Your task to perform on an android device: Search for Mexican restaurants on Maps Image 0: 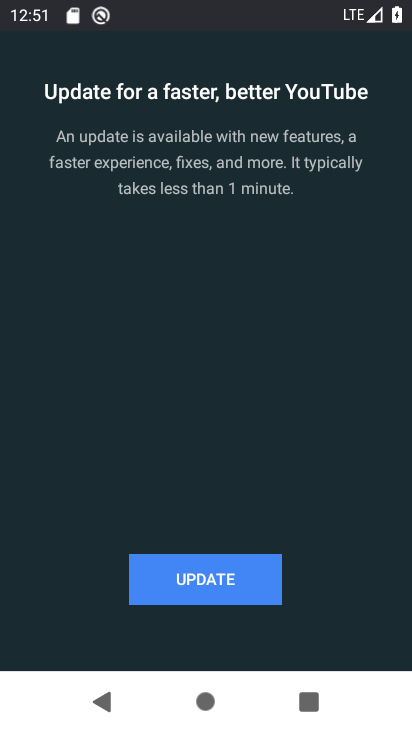
Step 0: press home button
Your task to perform on an android device: Search for Mexican restaurants on Maps Image 1: 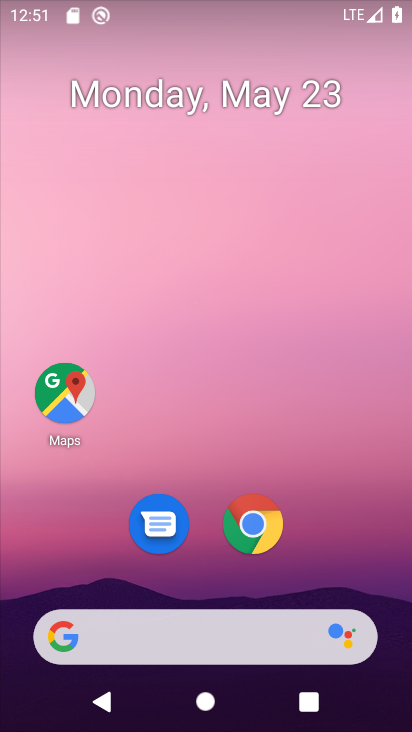
Step 1: click (66, 391)
Your task to perform on an android device: Search for Mexican restaurants on Maps Image 2: 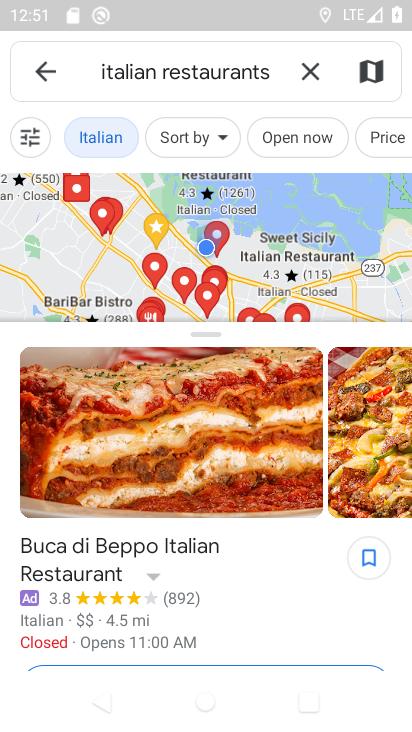
Step 2: click (308, 71)
Your task to perform on an android device: Search for Mexican restaurants on Maps Image 3: 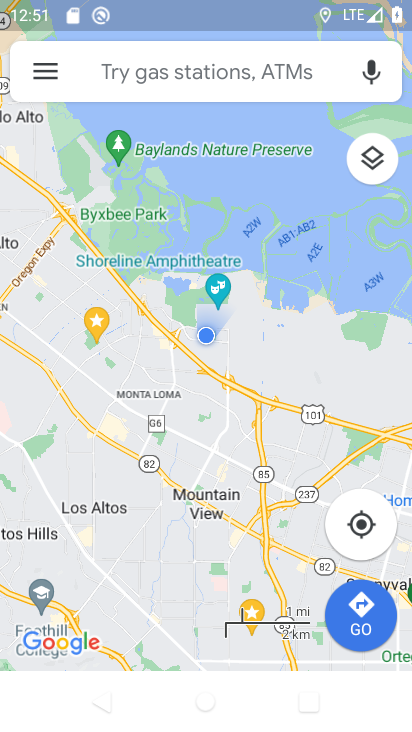
Step 3: click (212, 56)
Your task to perform on an android device: Search for Mexican restaurants on Maps Image 4: 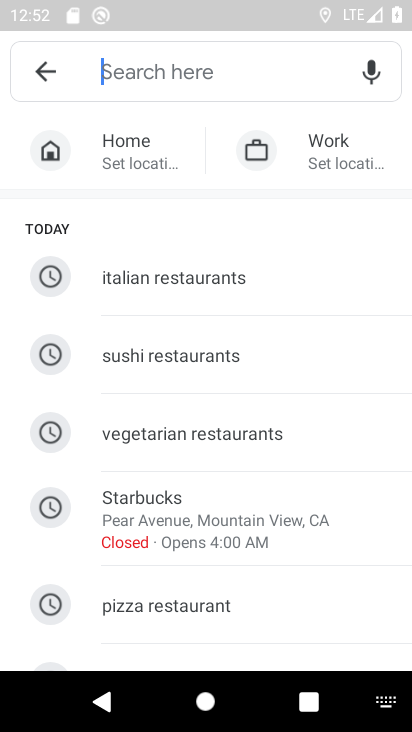
Step 4: drag from (236, 517) to (275, 237)
Your task to perform on an android device: Search for Mexican restaurants on Maps Image 5: 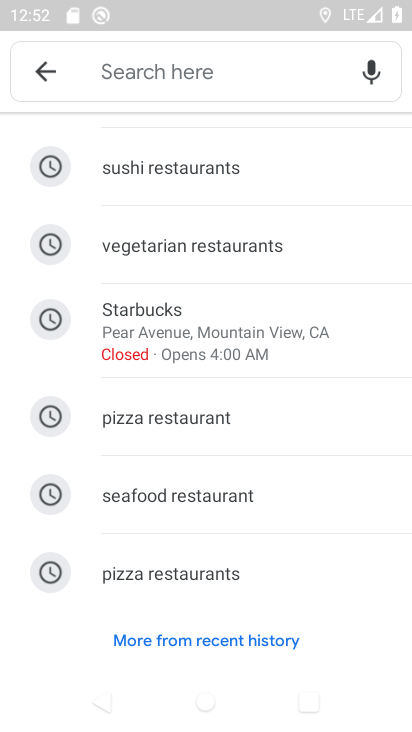
Step 5: drag from (229, 247) to (236, 612)
Your task to perform on an android device: Search for Mexican restaurants on Maps Image 6: 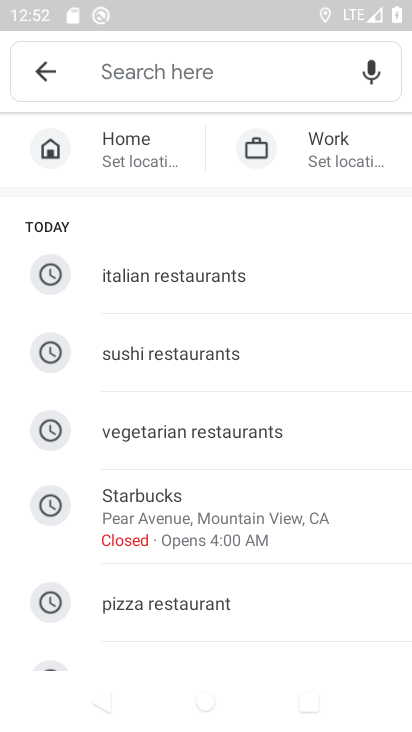
Step 6: click (247, 66)
Your task to perform on an android device: Search for Mexican restaurants on Maps Image 7: 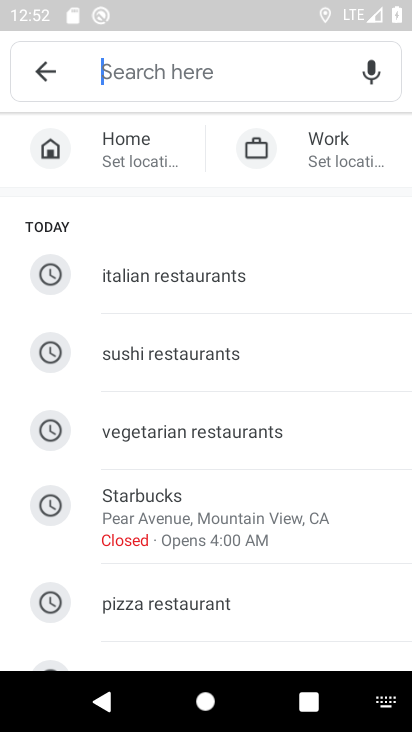
Step 7: type "Mexican restaurants"
Your task to perform on an android device: Search for Mexican restaurants on Maps Image 8: 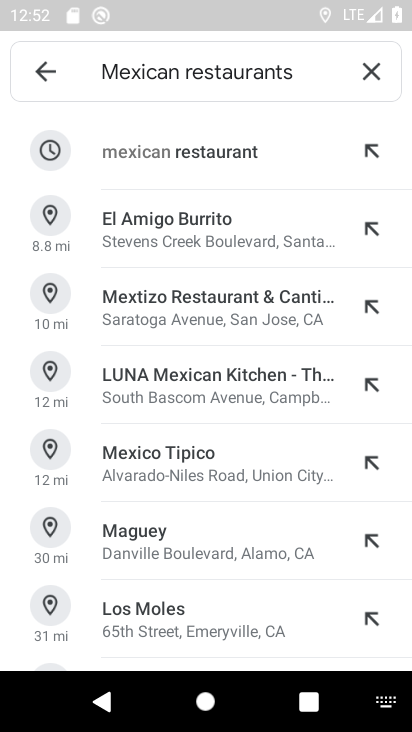
Step 8: click (235, 153)
Your task to perform on an android device: Search for Mexican restaurants on Maps Image 9: 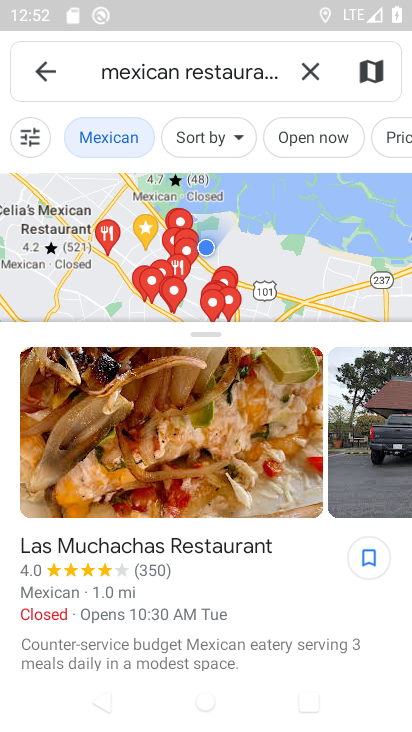
Step 9: task complete